Your task to perform on an android device: turn off data saver in the chrome app Image 0: 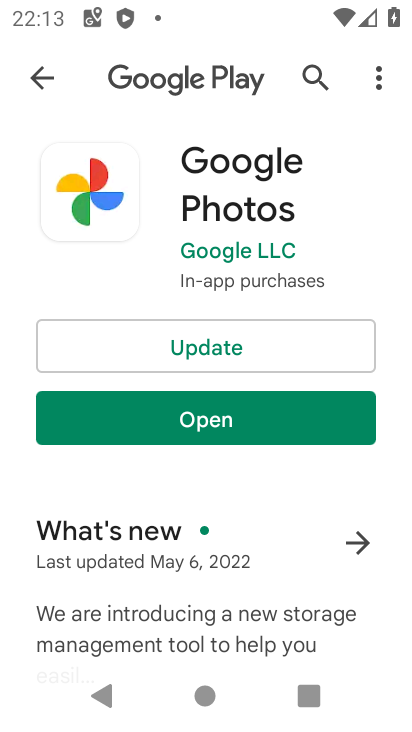
Step 0: drag from (220, 14) to (199, 574)
Your task to perform on an android device: turn off data saver in the chrome app Image 1: 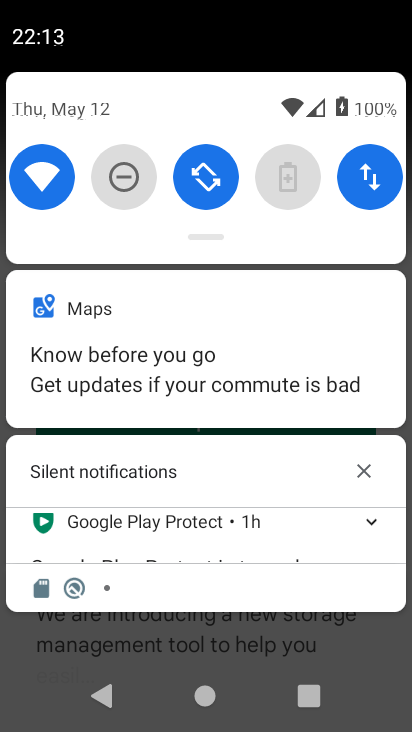
Step 1: press home button
Your task to perform on an android device: turn off data saver in the chrome app Image 2: 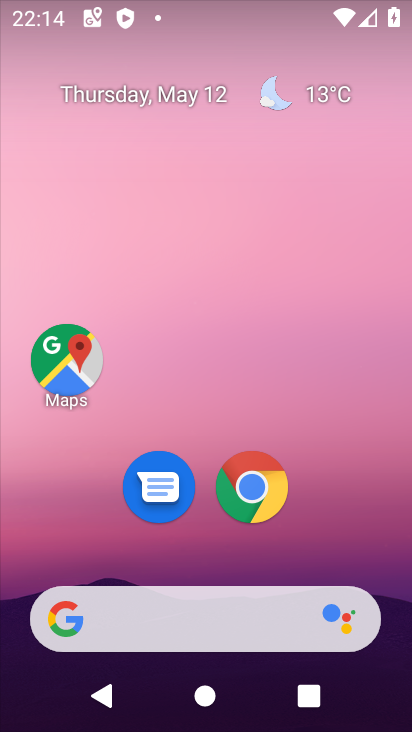
Step 2: click (252, 480)
Your task to perform on an android device: turn off data saver in the chrome app Image 3: 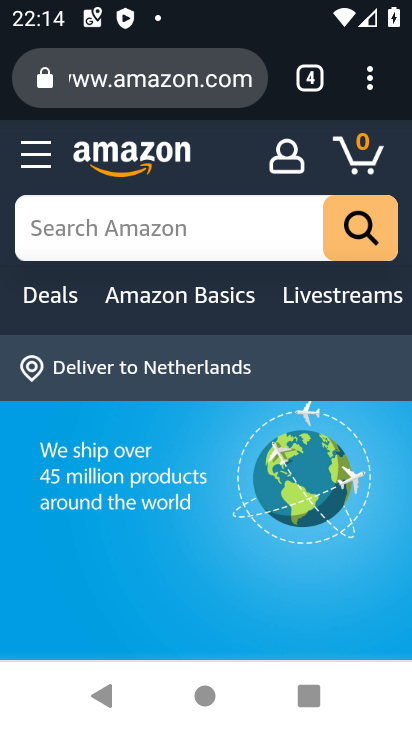
Step 3: click (386, 69)
Your task to perform on an android device: turn off data saver in the chrome app Image 4: 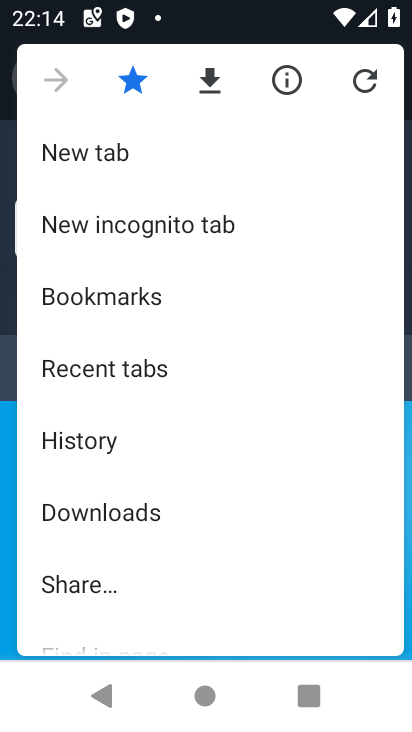
Step 4: drag from (161, 544) to (201, 137)
Your task to perform on an android device: turn off data saver in the chrome app Image 5: 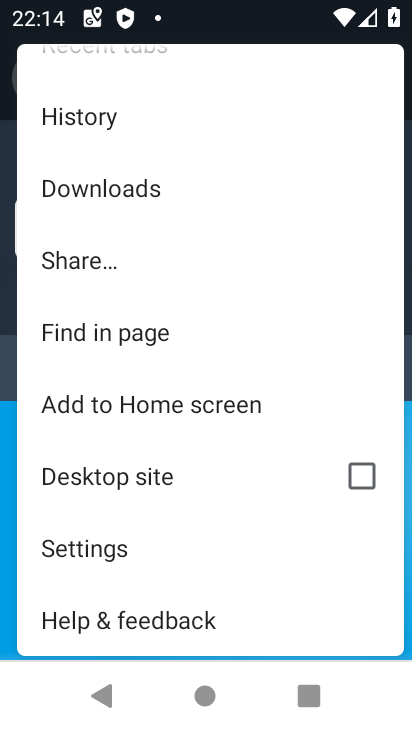
Step 5: click (117, 536)
Your task to perform on an android device: turn off data saver in the chrome app Image 6: 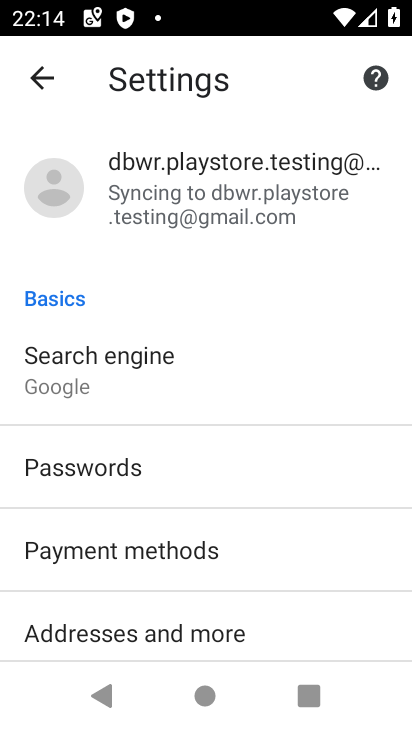
Step 6: drag from (175, 555) to (192, 267)
Your task to perform on an android device: turn off data saver in the chrome app Image 7: 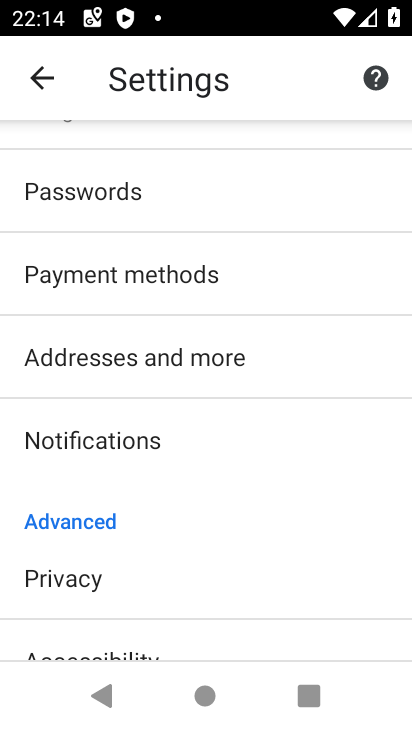
Step 7: drag from (231, 570) to (250, 338)
Your task to perform on an android device: turn off data saver in the chrome app Image 8: 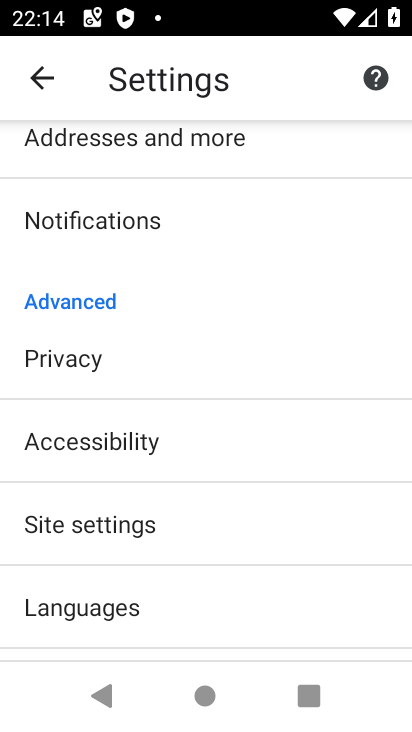
Step 8: drag from (150, 576) to (185, 167)
Your task to perform on an android device: turn off data saver in the chrome app Image 9: 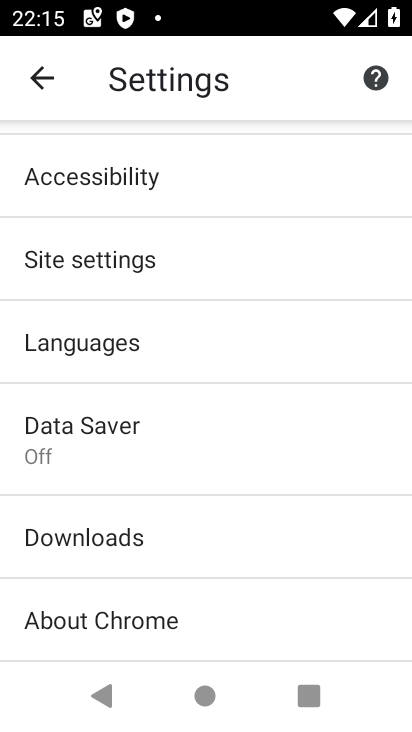
Step 9: click (129, 446)
Your task to perform on an android device: turn off data saver in the chrome app Image 10: 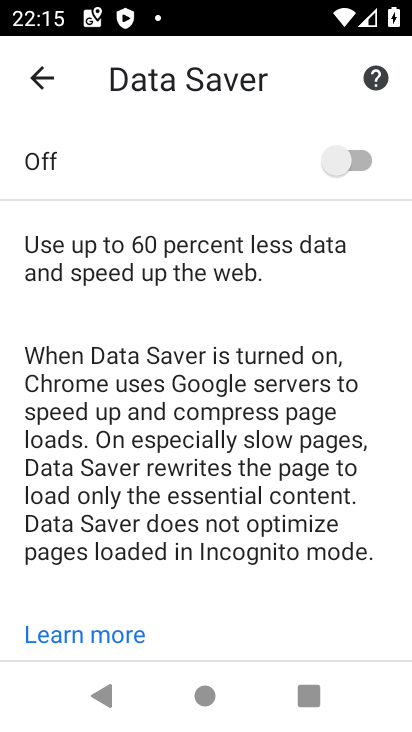
Step 10: task complete